Your task to perform on an android device: Open Yahoo.com Image 0: 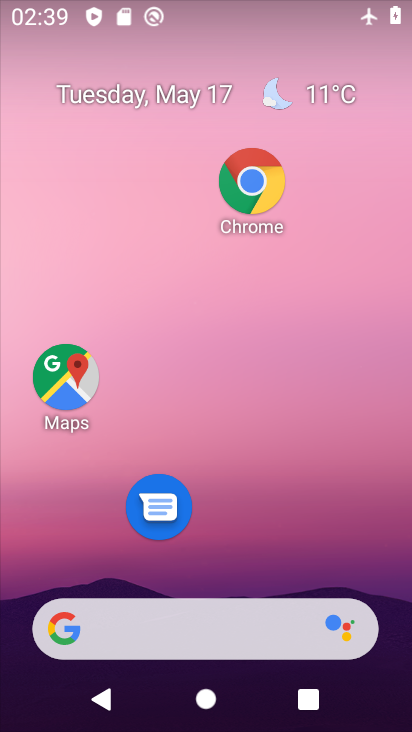
Step 0: click (247, 189)
Your task to perform on an android device: Open Yahoo.com Image 1: 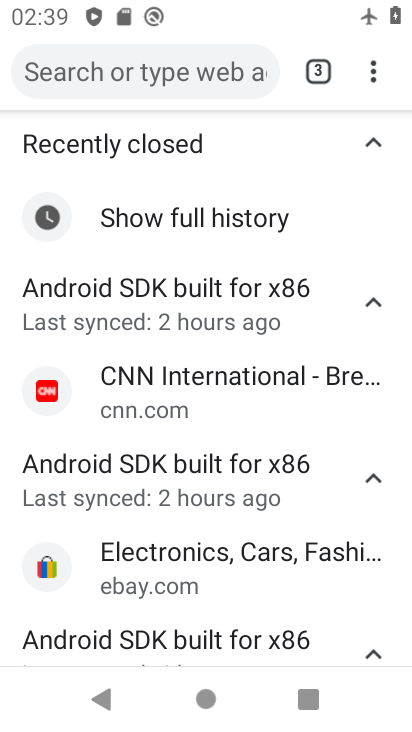
Step 1: click (320, 56)
Your task to perform on an android device: Open Yahoo.com Image 2: 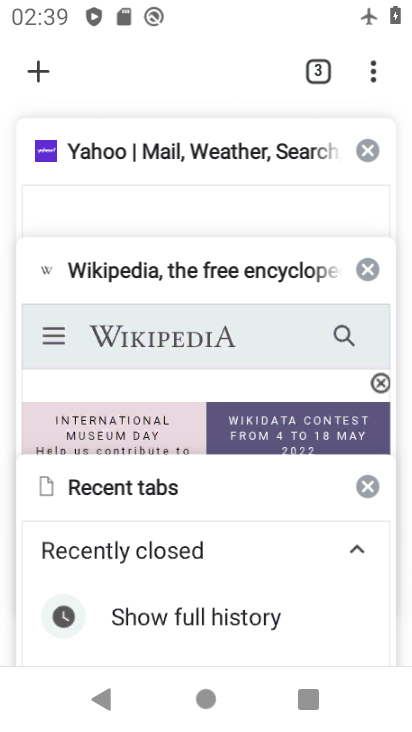
Step 2: click (126, 144)
Your task to perform on an android device: Open Yahoo.com Image 3: 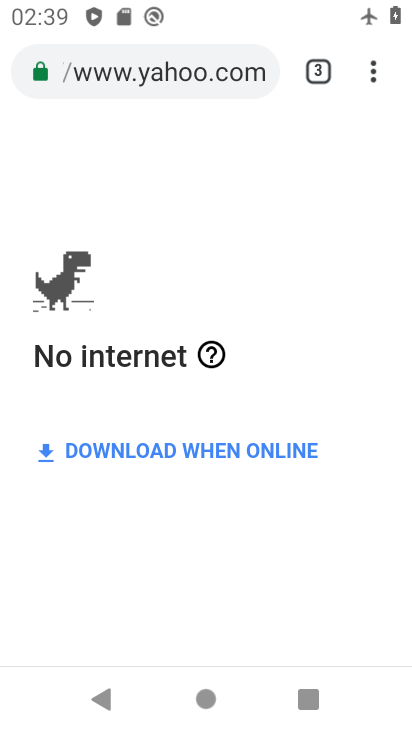
Step 3: drag from (256, 8) to (324, 426)
Your task to perform on an android device: Open Yahoo.com Image 4: 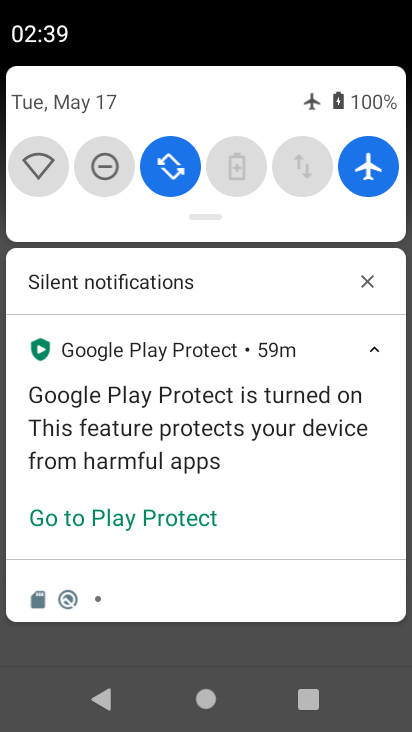
Step 4: click (360, 156)
Your task to perform on an android device: Open Yahoo.com Image 5: 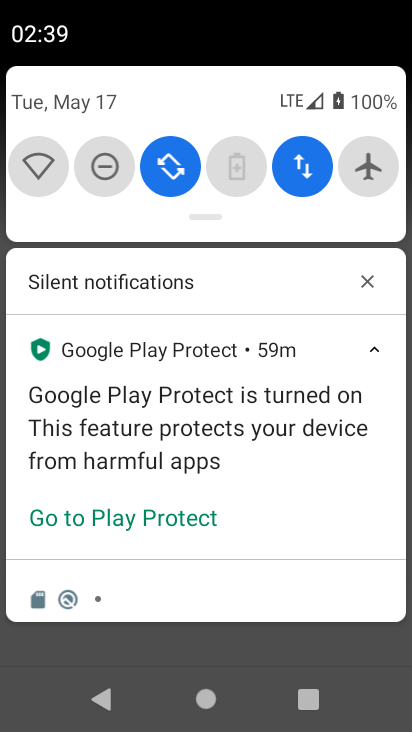
Step 5: click (150, 640)
Your task to perform on an android device: Open Yahoo.com Image 6: 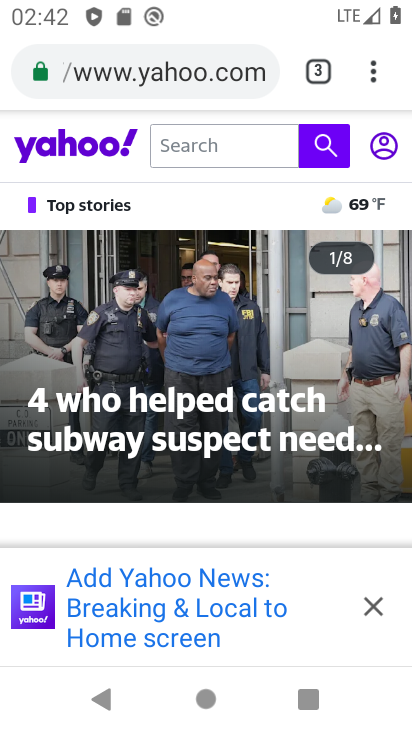
Step 6: task complete